Your task to perform on an android device: Open ESPN.com Image 0: 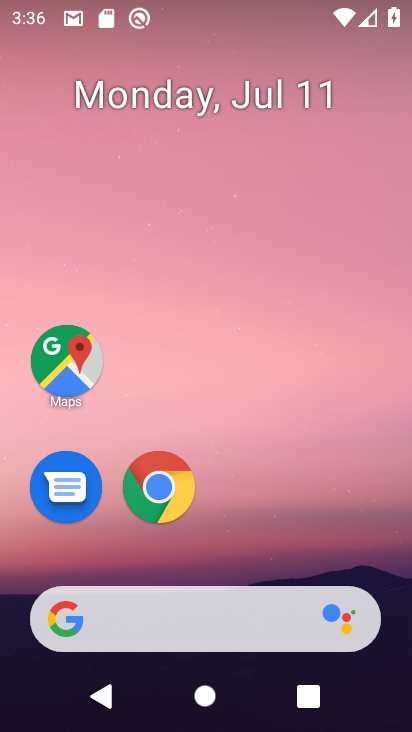
Step 0: press home button
Your task to perform on an android device: Open ESPN.com Image 1: 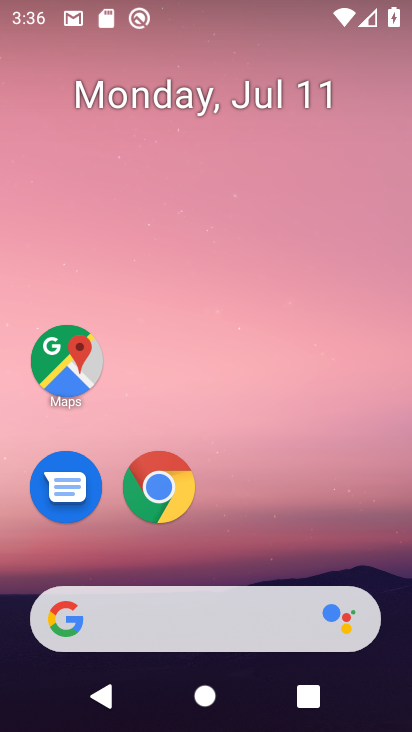
Step 1: click (169, 495)
Your task to perform on an android device: Open ESPN.com Image 2: 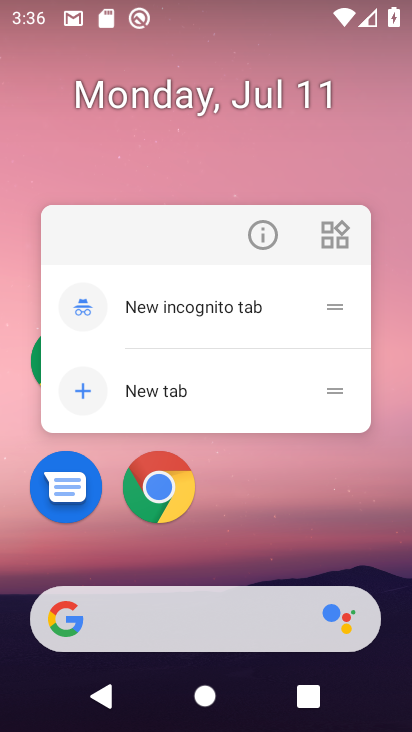
Step 2: click (166, 504)
Your task to perform on an android device: Open ESPN.com Image 3: 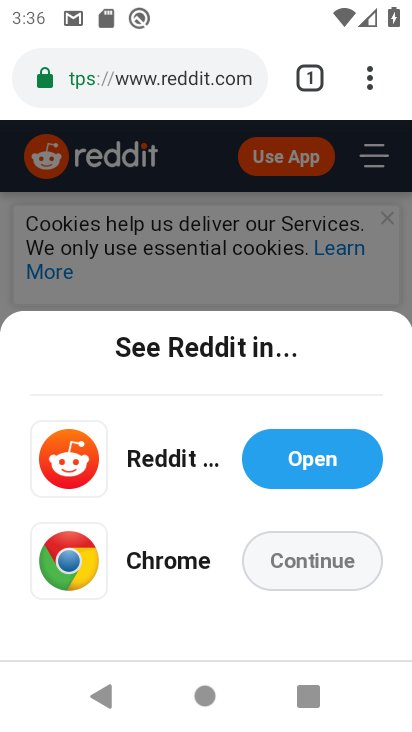
Step 3: drag from (372, 81) to (251, 155)
Your task to perform on an android device: Open ESPN.com Image 4: 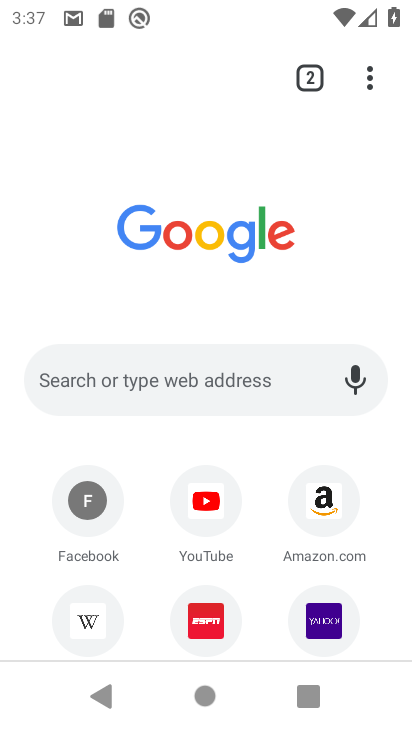
Step 4: click (211, 618)
Your task to perform on an android device: Open ESPN.com Image 5: 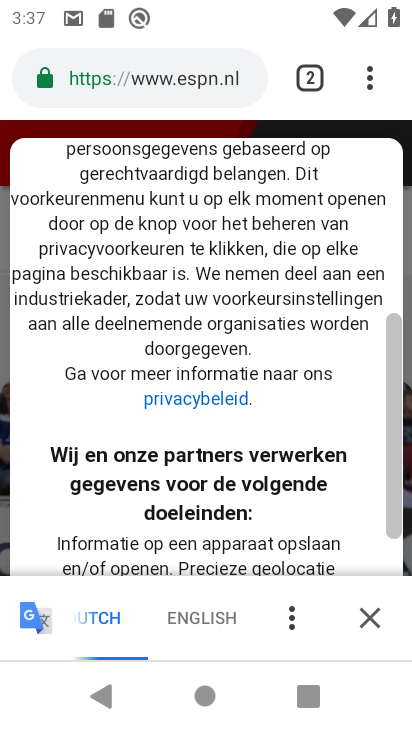
Step 5: click (187, 612)
Your task to perform on an android device: Open ESPN.com Image 6: 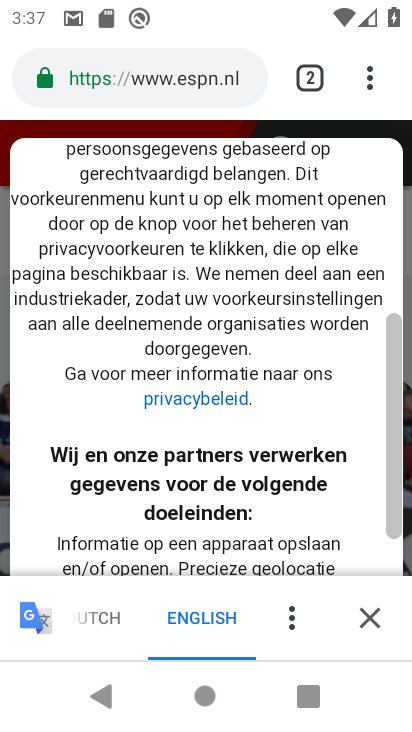
Step 6: drag from (270, 512) to (373, 140)
Your task to perform on an android device: Open ESPN.com Image 7: 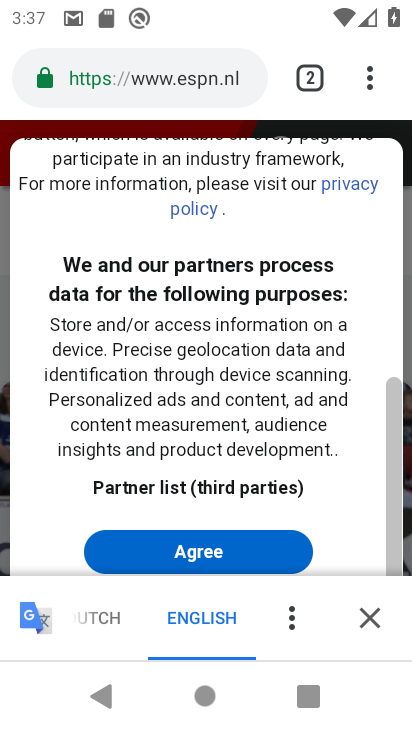
Step 7: click (225, 547)
Your task to perform on an android device: Open ESPN.com Image 8: 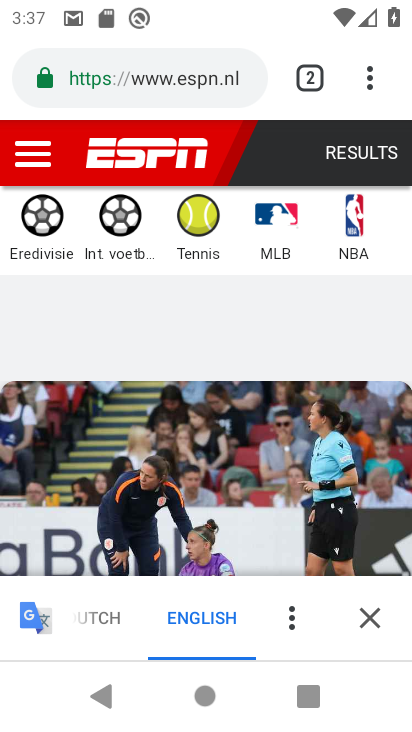
Step 8: task complete